Your task to perform on an android device: Open the web browser Image 0: 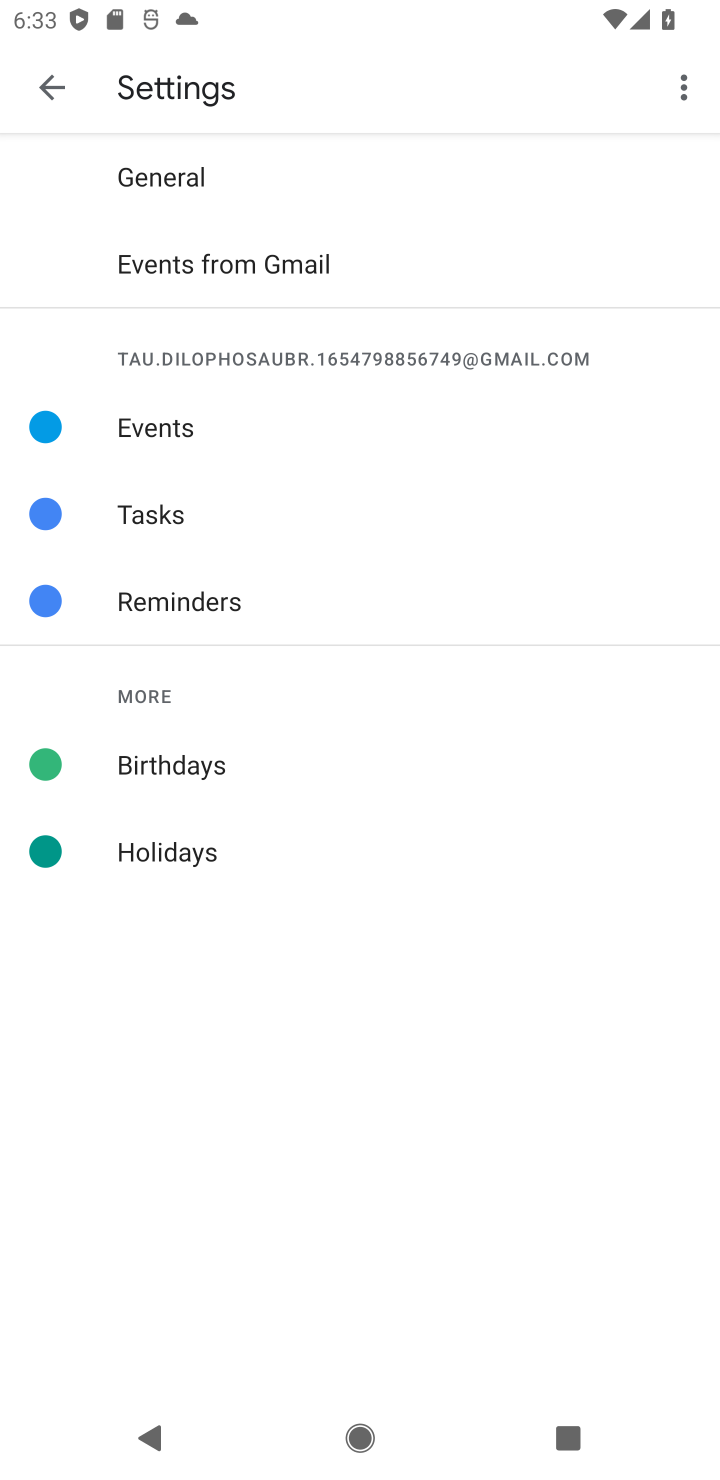
Step 0: press home button
Your task to perform on an android device: Open the web browser Image 1: 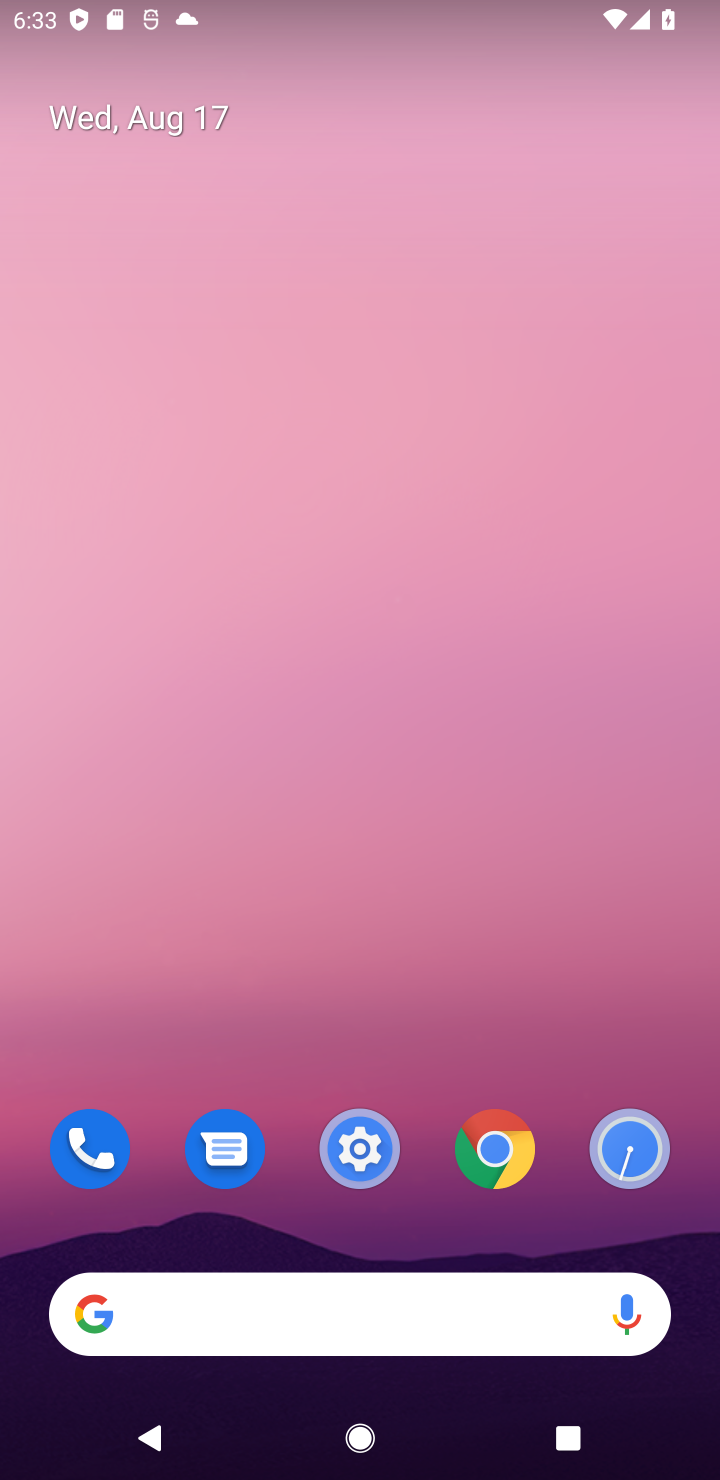
Step 1: click (492, 1151)
Your task to perform on an android device: Open the web browser Image 2: 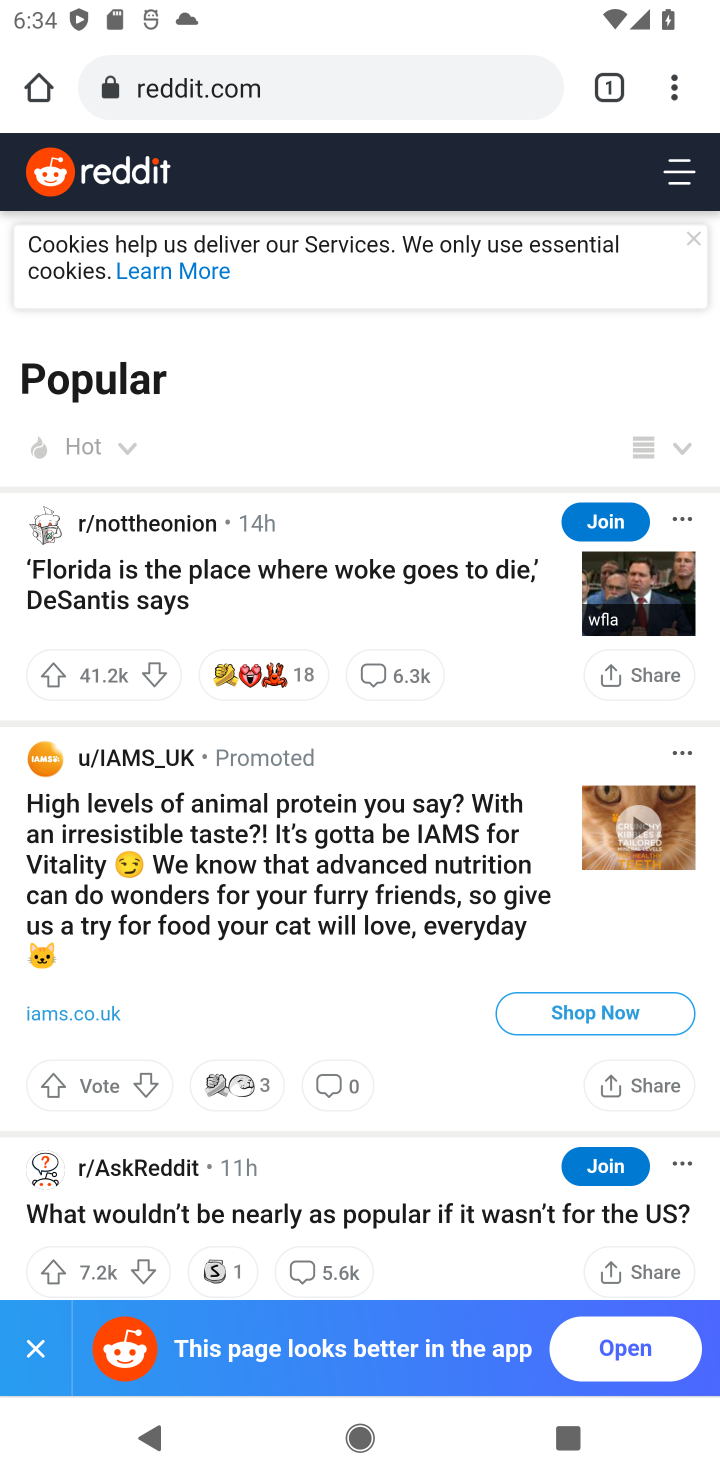
Step 2: task complete